Your task to perform on an android device: turn on bluetooth scan Image 0: 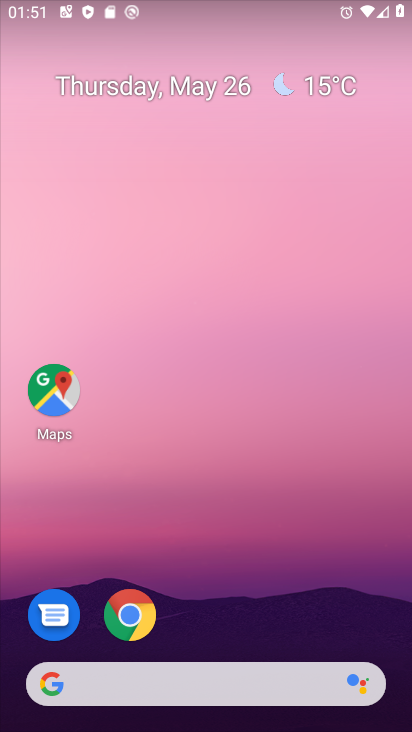
Step 0: drag from (253, 494) to (307, 15)
Your task to perform on an android device: turn on bluetooth scan Image 1: 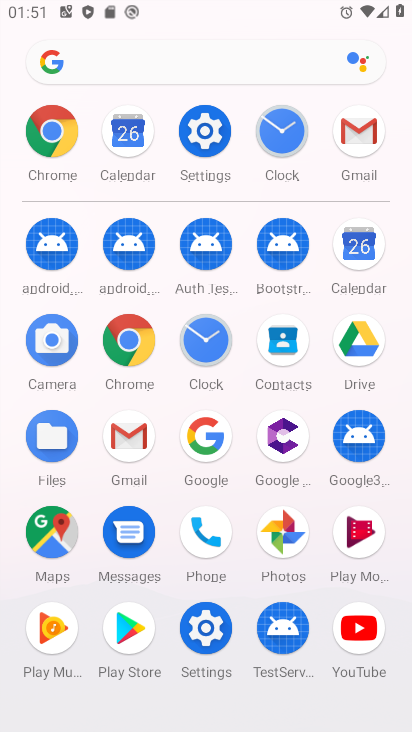
Step 1: click (207, 133)
Your task to perform on an android device: turn on bluetooth scan Image 2: 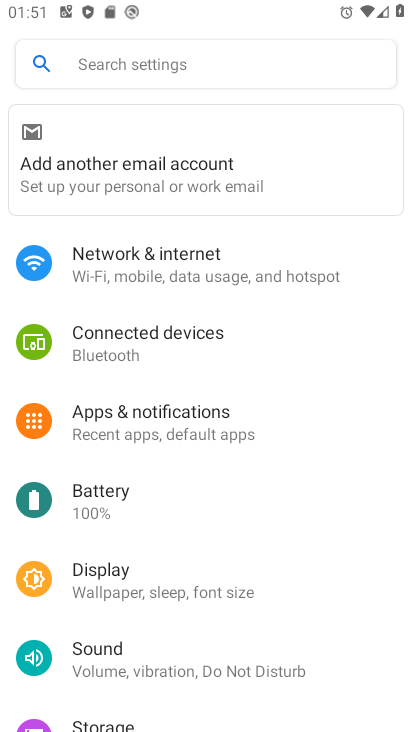
Step 2: click (143, 348)
Your task to perform on an android device: turn on bluetooth scan Image 3: 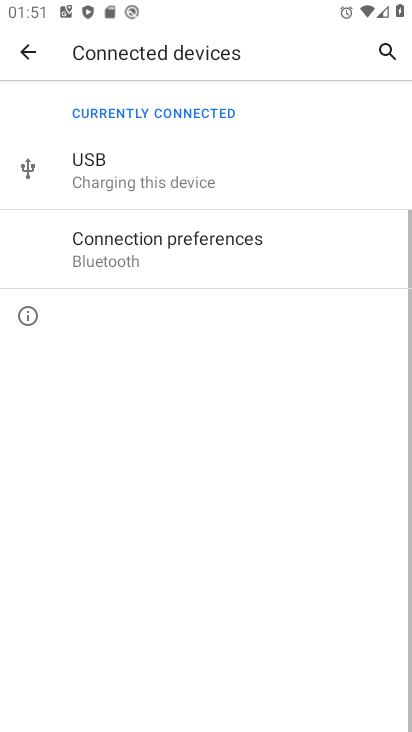
Step 3: click (154, 256)
Your task to perform on an android device: turn on bluetooth scan Image 4: 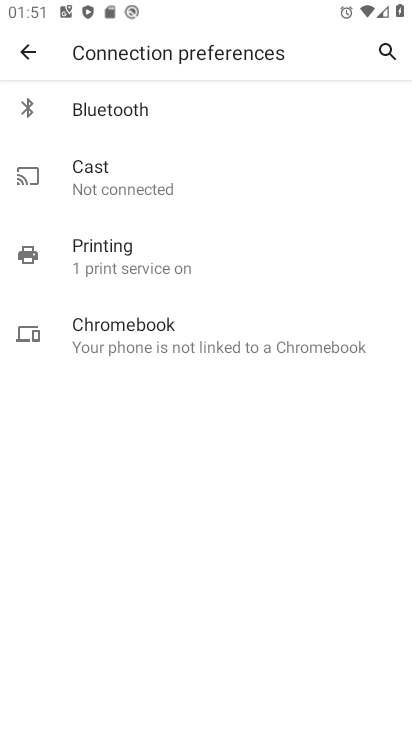
Step 4: click (135, 112)
Your task to perform on an android device: turn on bluetooth scan Image 5: 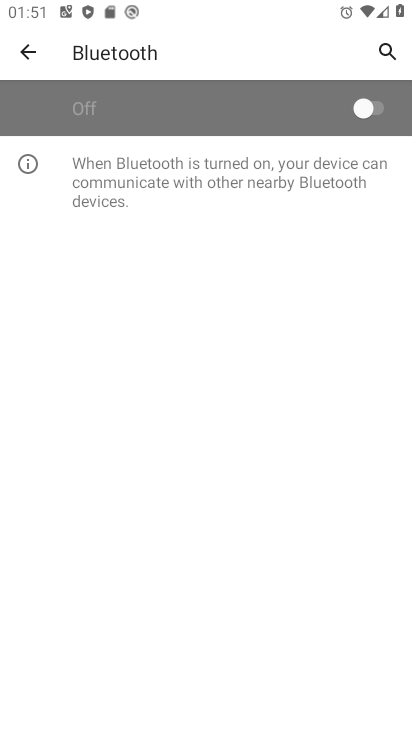
Step 5: click (362, 111)
Your task to perform on an android device: turn on bluetooth scan Image 6: 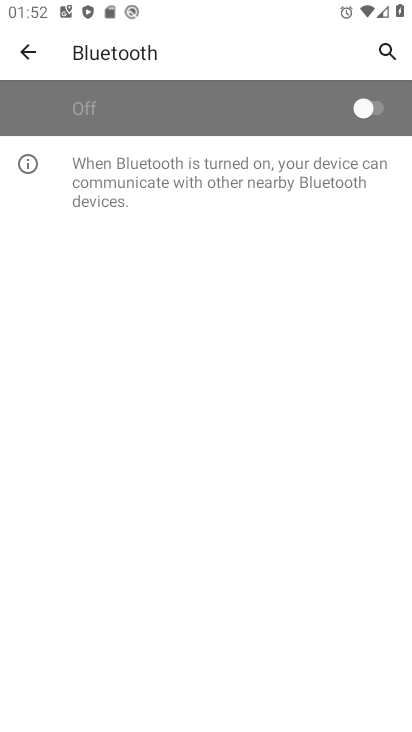
Step 6: task complete